Your task to perform on an android device: clear all cookies in the chrome app Image 0: 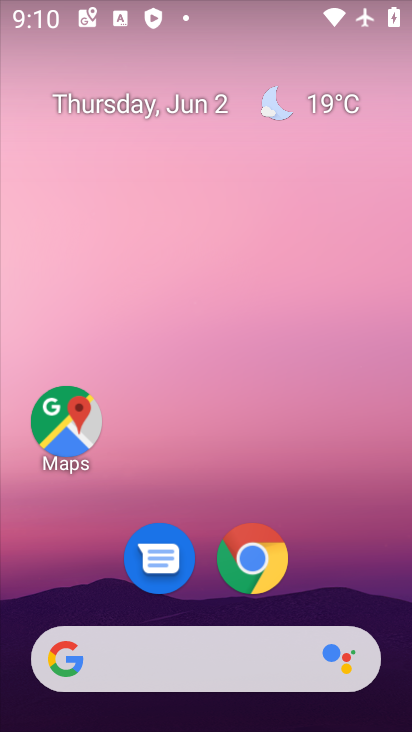
Step 0: click (254, 562)
Your task to perform on an android device: clear all cookies in the chrome app Image 1: 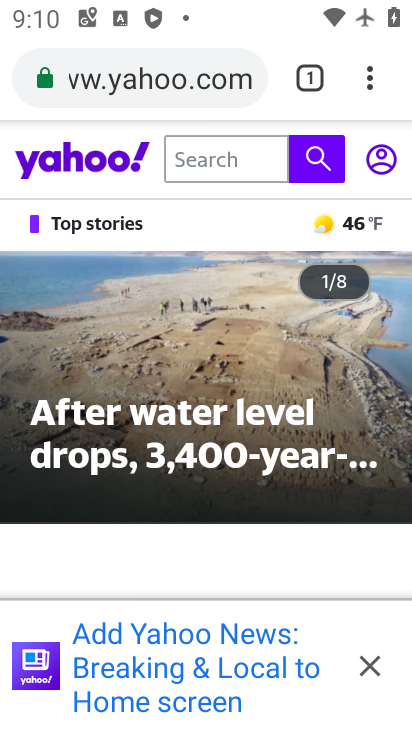
Step 1: click (365, 82)
Your task to perform on an android device: clear all cookies in the chrome app Image 2: 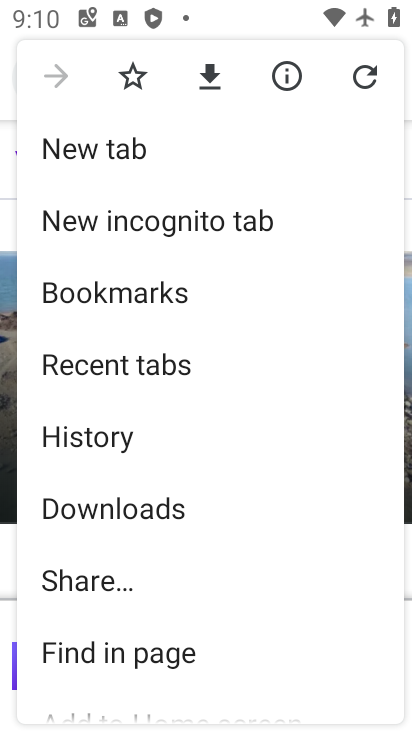
Step 2: click (117, 429)
Your task to perform on an android device: clear all cookies in the chrome app Image 3: 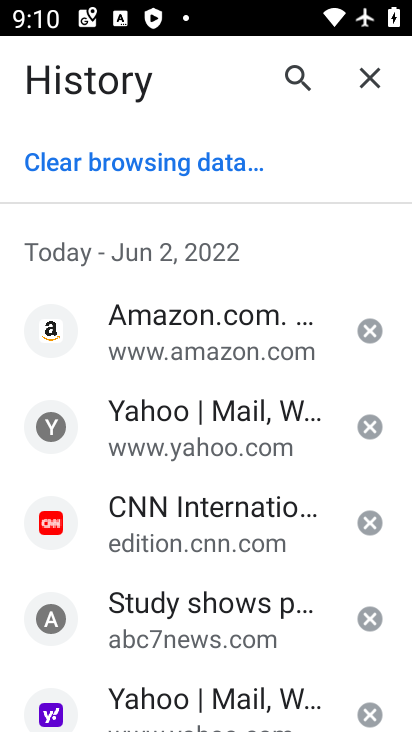
Step 3: click (135, 168)
Your task to perform on an android device: clear all cookies in the chrome app Image 4: 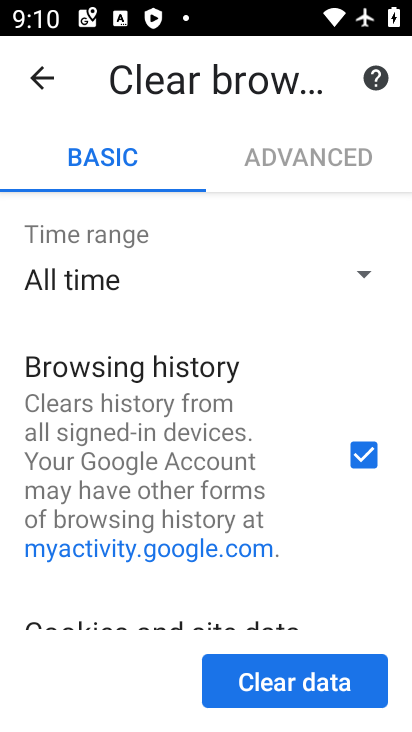
Step 4: drag from (288, 493) to (266, 212)
Your task to perform on an android device: clear all cookies in the chrome app Image 5: 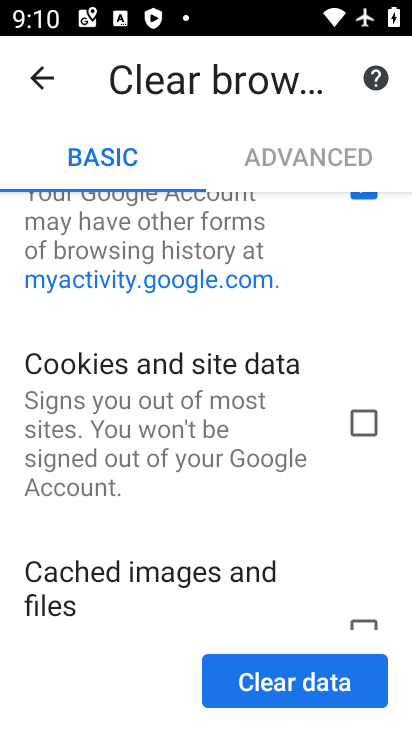
Step 5: drag from (336, 205) to (338, 287)
Your task to perform on an android device: clear all cookies in the chrome app Image 6: 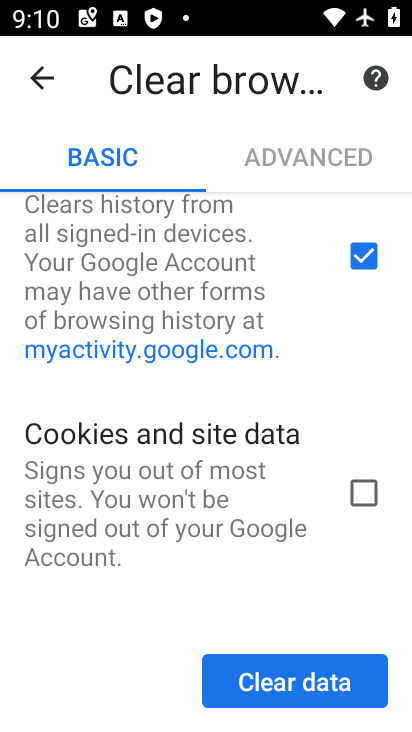
Step 6: click (362, 261)
Your task to perform on an android device: clear all cookies in the chrome app Image 7: 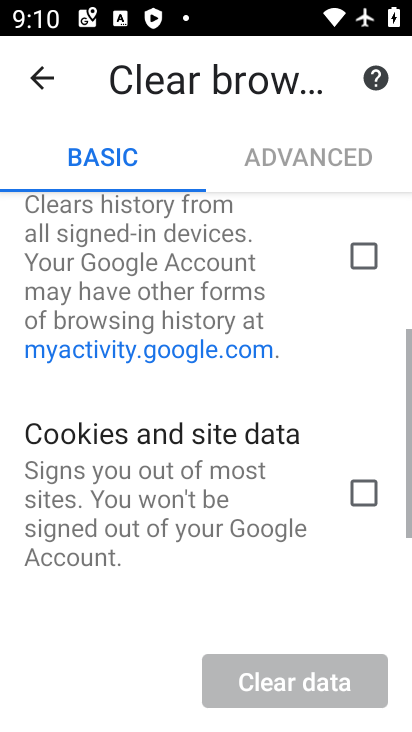
Step 7: click (359, 507)
Your task to perform on an android device: clear all cookies in the chrome app Image 8: 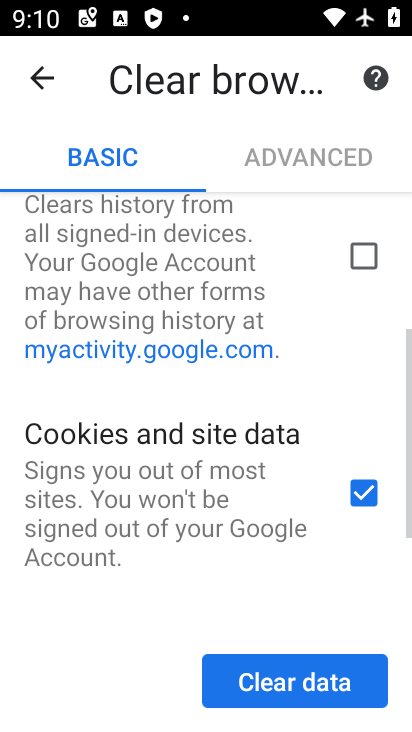
Step 8: click (299, 680)
Your task to perform on an android device: clear all cookies in the chrome app Image 9: 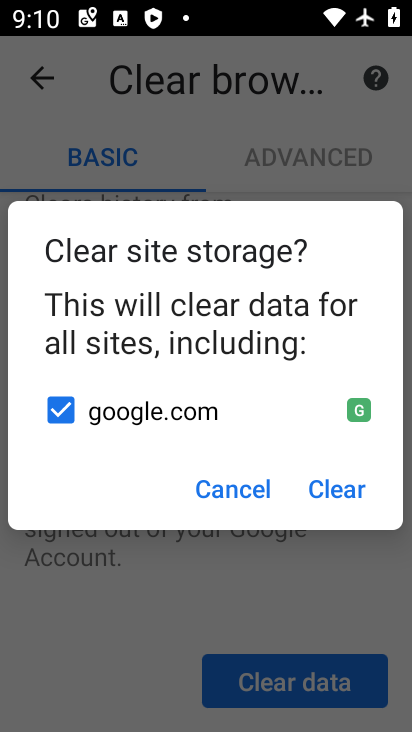
Step 9: click (335, 481)
Your task to perform on an android device: clear all cookies in the chrome app Image 10: 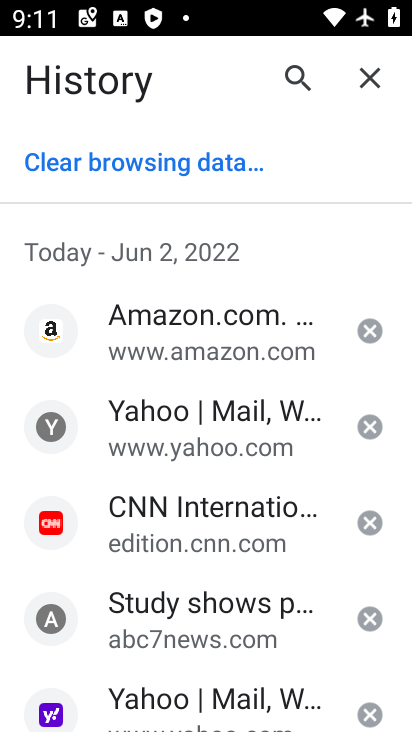
Step 10: task complete